Your task to perform on an android device: empty trash in the gmail app Image 0: 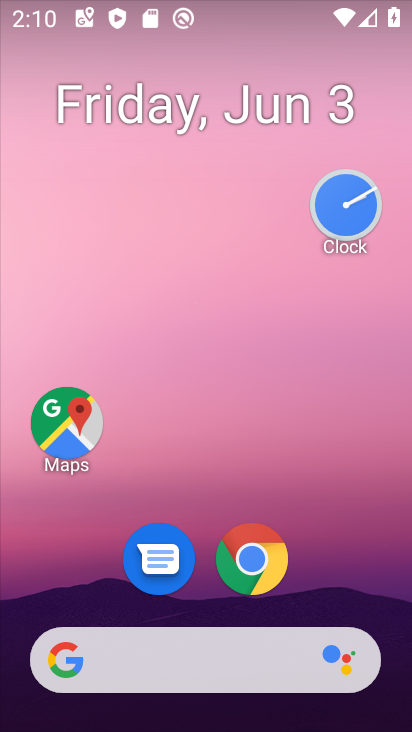
Step 0: drag from (365, 538) to (388, 257)
Your task to perform on an android device: empty trash in the gmail app Image 1: 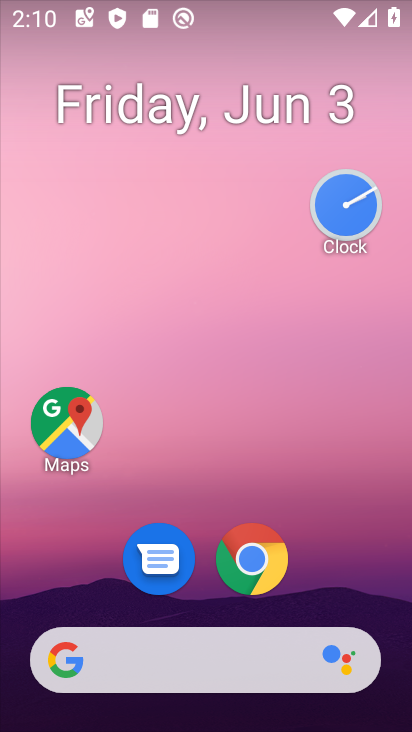
Step 1: drag from (343, 579) to (385, 134)
Your task to perform on an android device: empty trash in the gmail app Image 2: 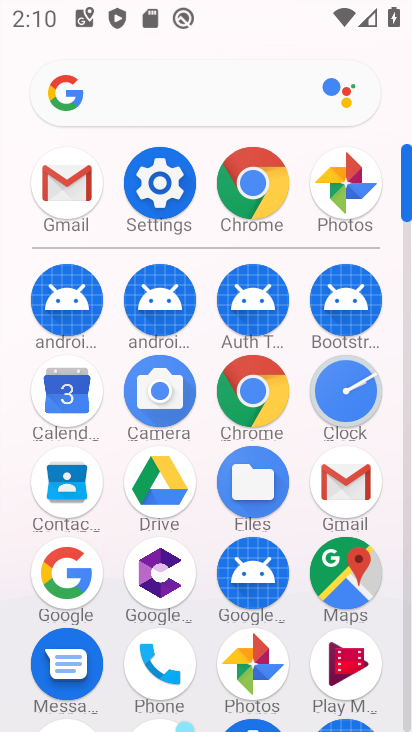
Step 2: click (67, 177)
Your task to perform on an android device: empty trash in the gmail app Image 3: 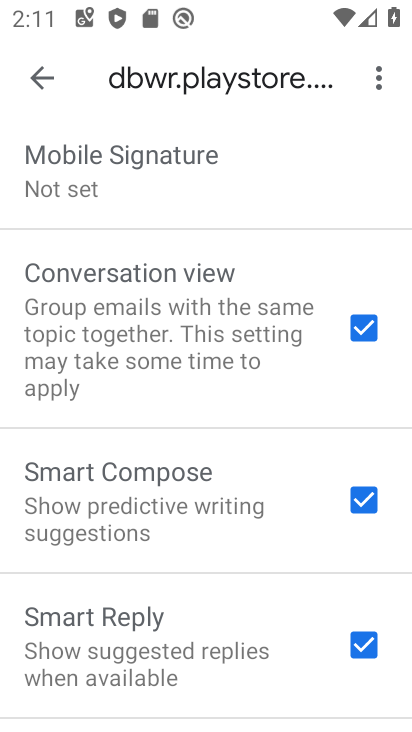
Step 3: click (44, 80)
Your task to perform on an android device: empty trash in the gmail app Image 4: 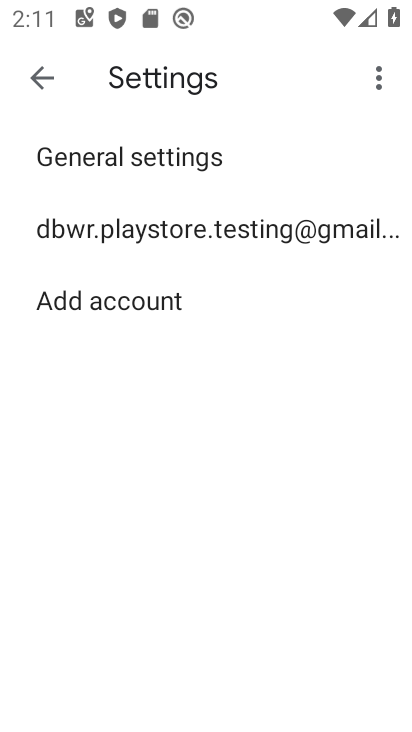
Step 4: click (44, 80)
Your task to perform on an android device: empty trash in the gmail app Image 5: 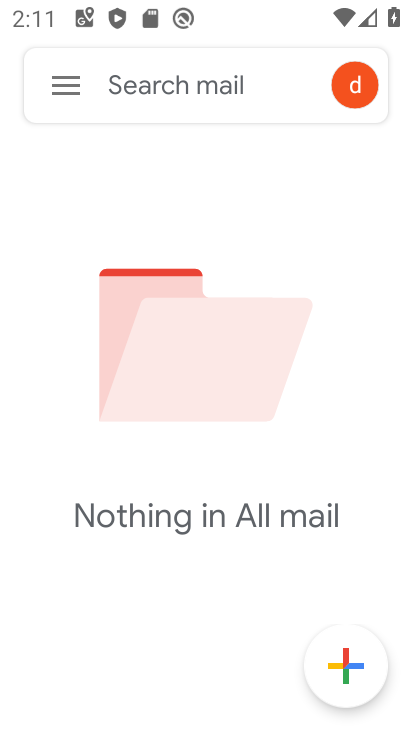
Step 5: click (75, 83)
Your task to perform on an android device: empty trash in the gmail app Image 6: 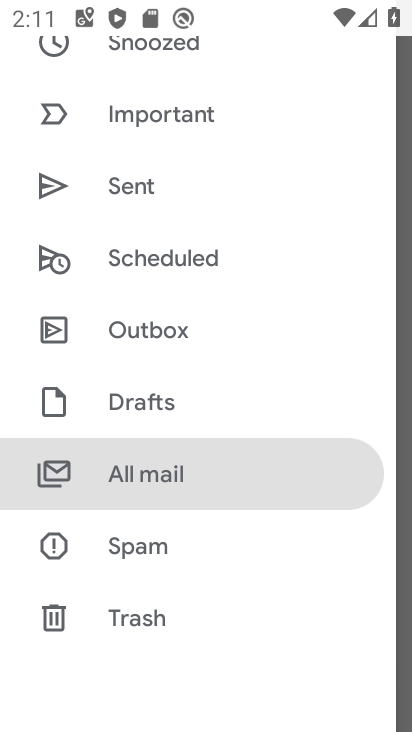
Step 6: click (184, 623)
Your task to perform on an android device: empty trash in the gmail app Image 7: 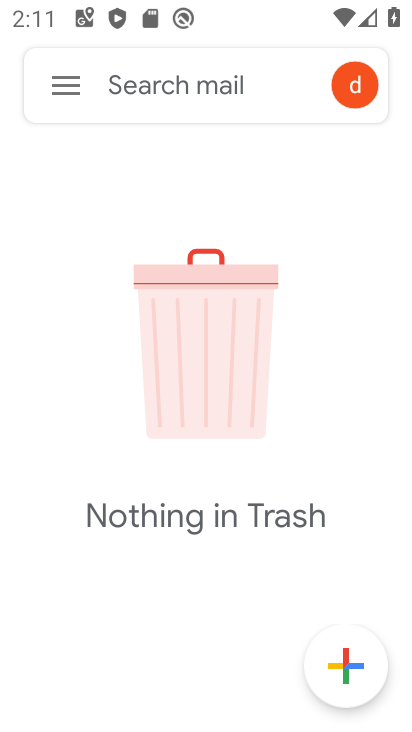
Step 7: task complete